Your task to perform on an android device: Search for sushi restaurants on Maps Image 0: 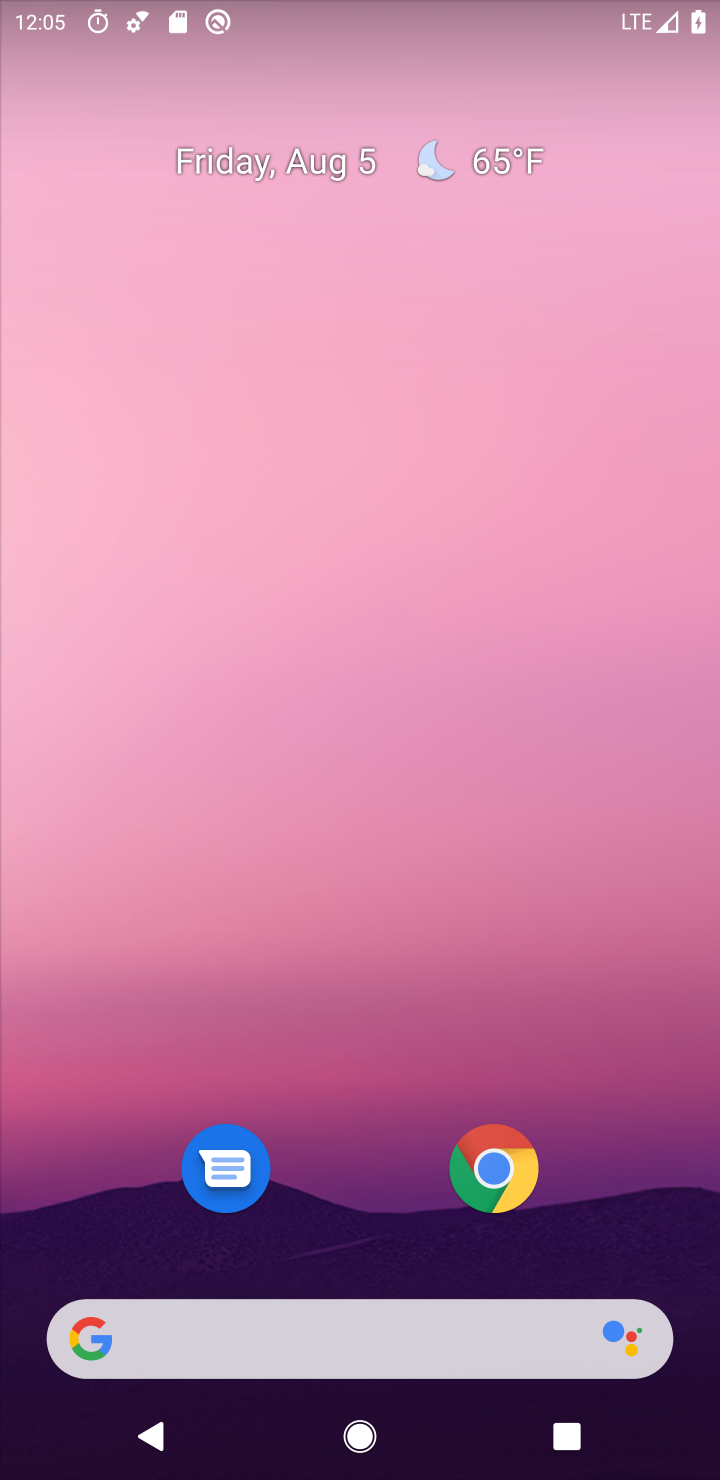
Step 0: drag from (333, 984) to (413, 84)
Your task to perform on an android device: Search for sushi restaurants on Maps Image 1: 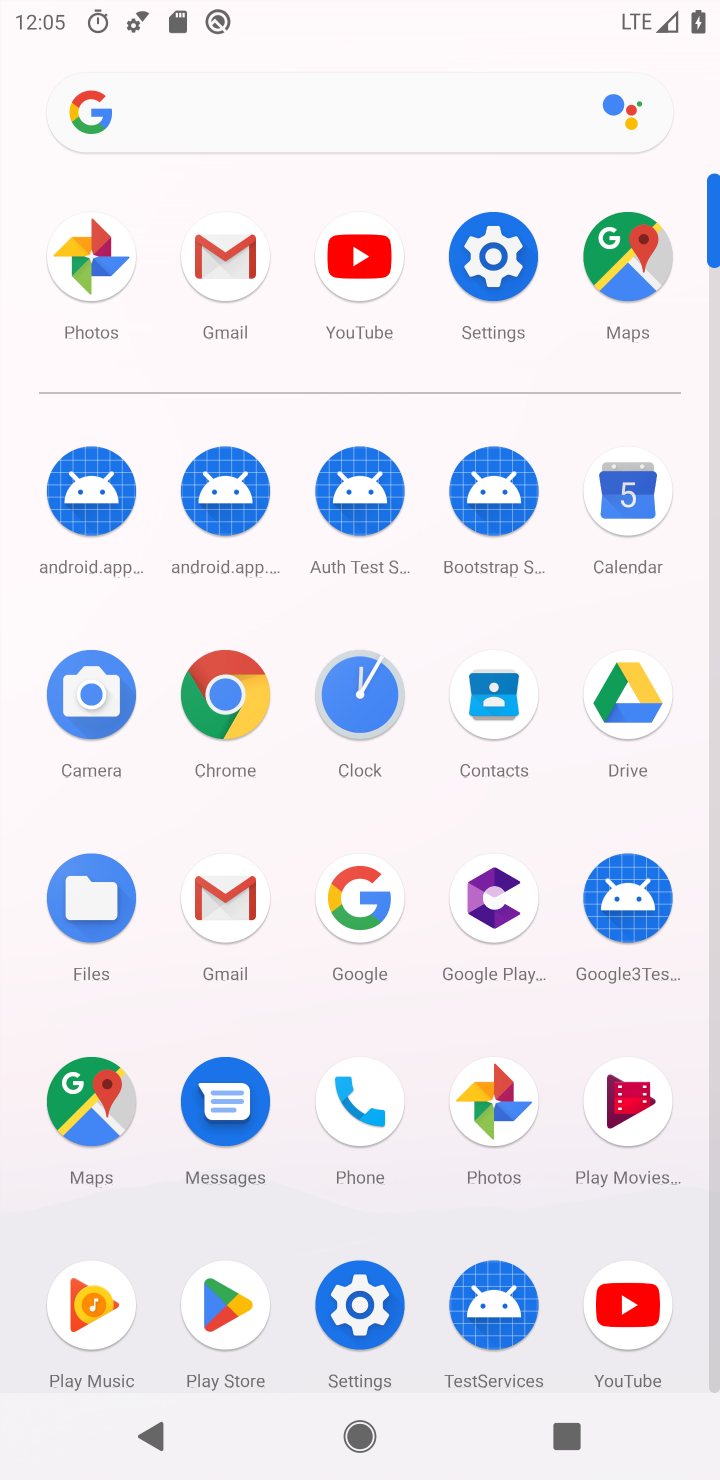
Step 1: click (84, 1155)
Your task to perform on an android device: Search for sushi restaurants on Maps Image 2: 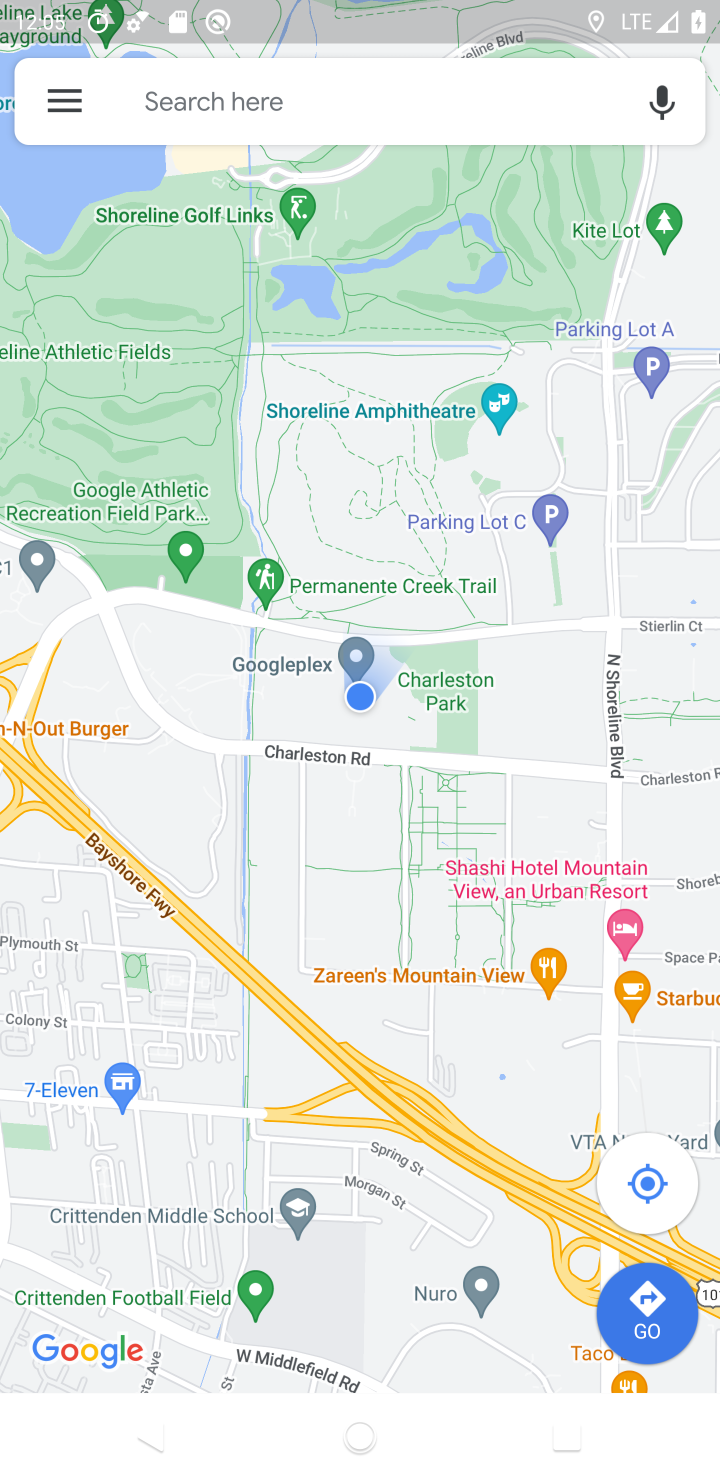
Step 2: click (361, 105)
Your task to perform on an android device: Search for sushi restaurants on Maps Image 3: 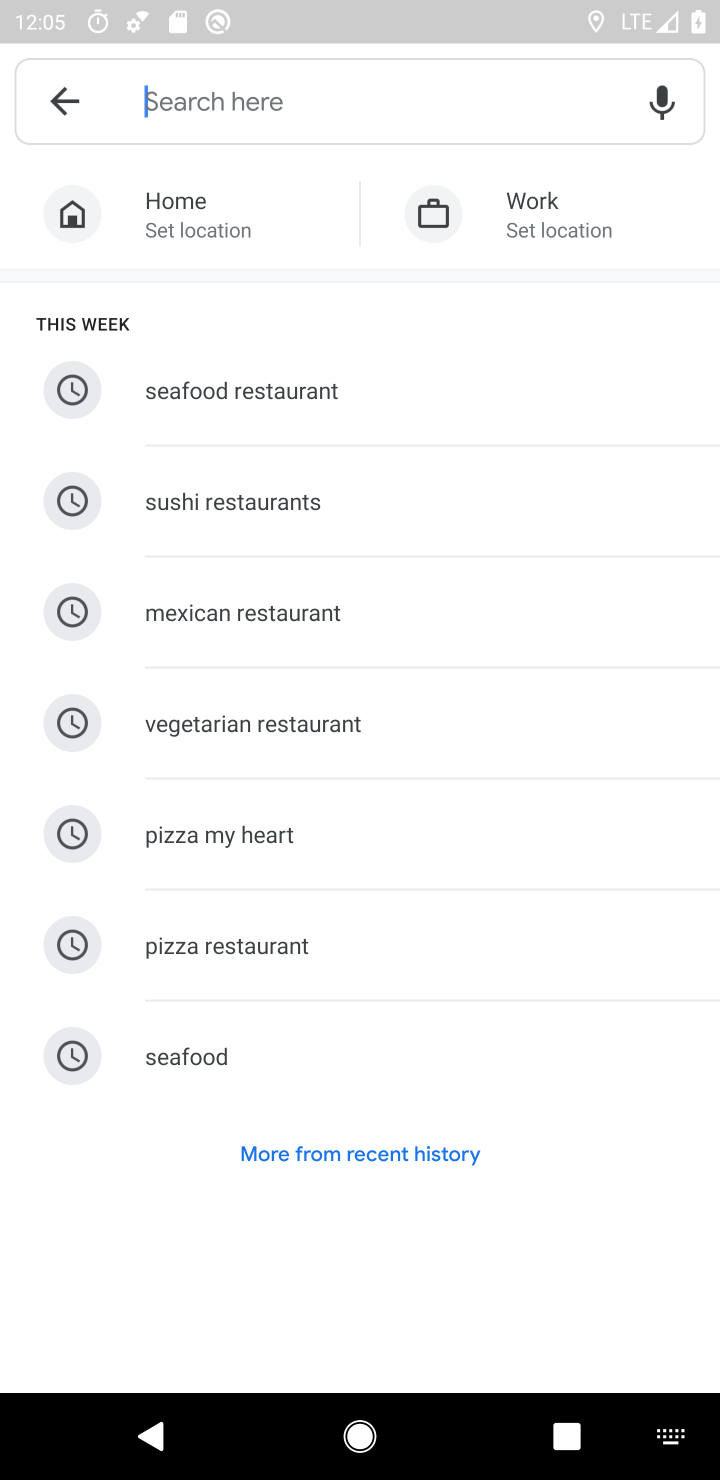
Step 3: type "sushi restaurants"
Your task to perform on an android device: Search for sushi restaurants on Maps Image 4: 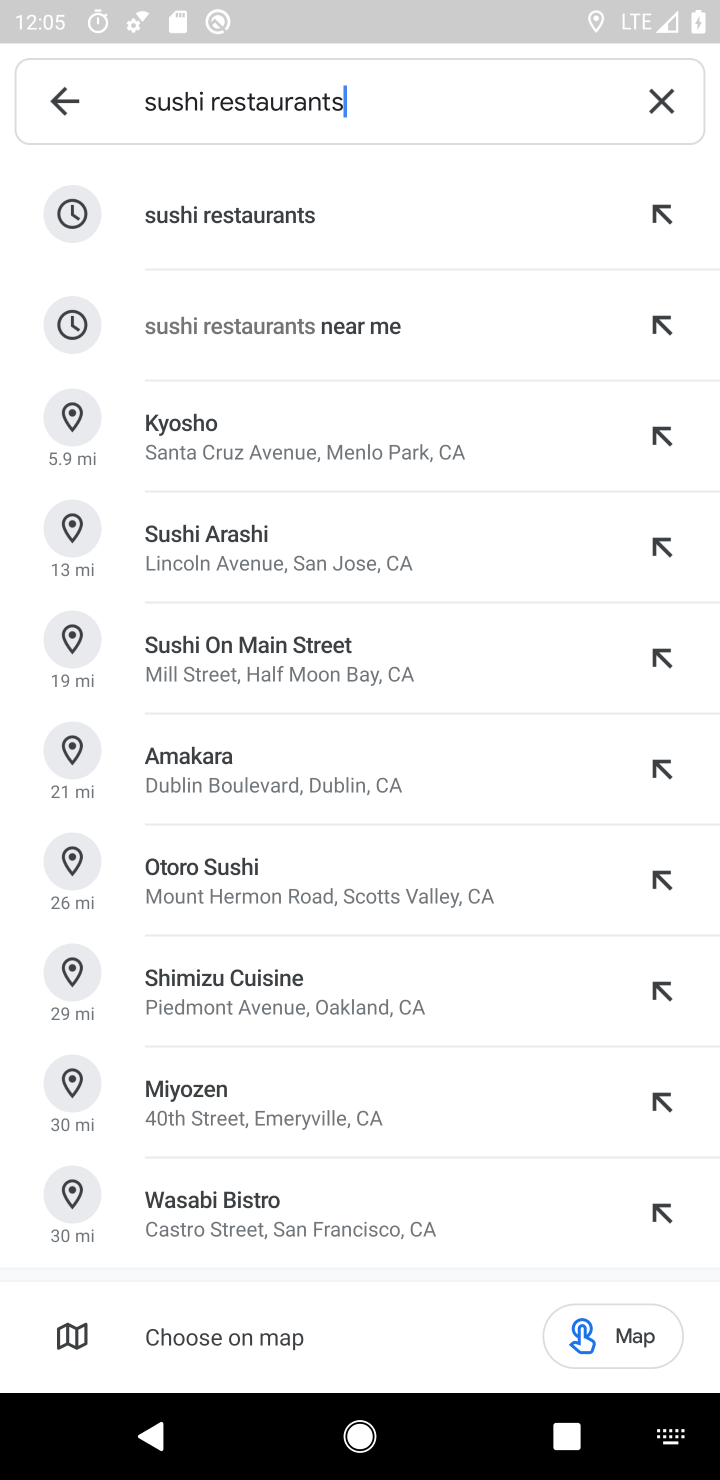
Step 4: click (298, 224)
Your task to perform on an android device: Search for sushi restaurants on Maps Image 5: 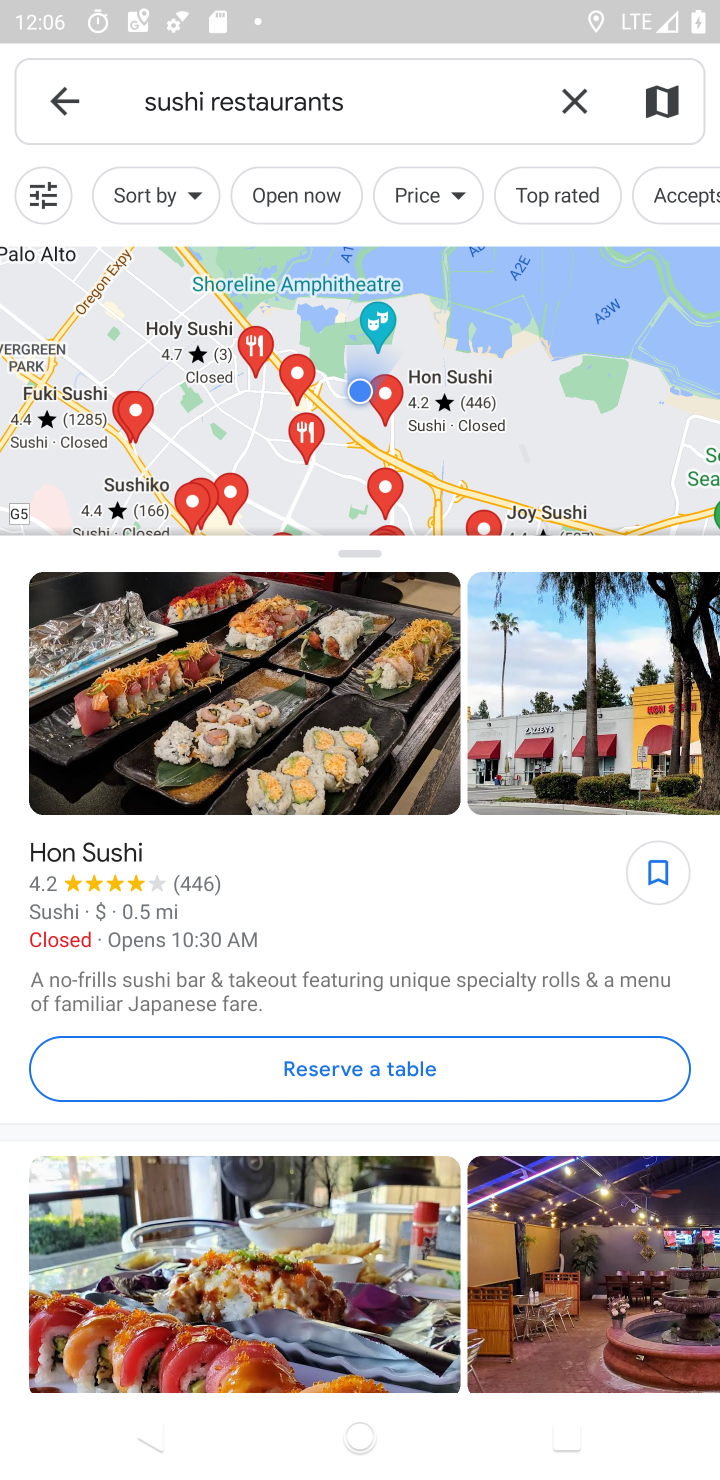
Step 5: task complete